Your task to perform on an android device: toggle notifications settings in the gmail app Image 0: 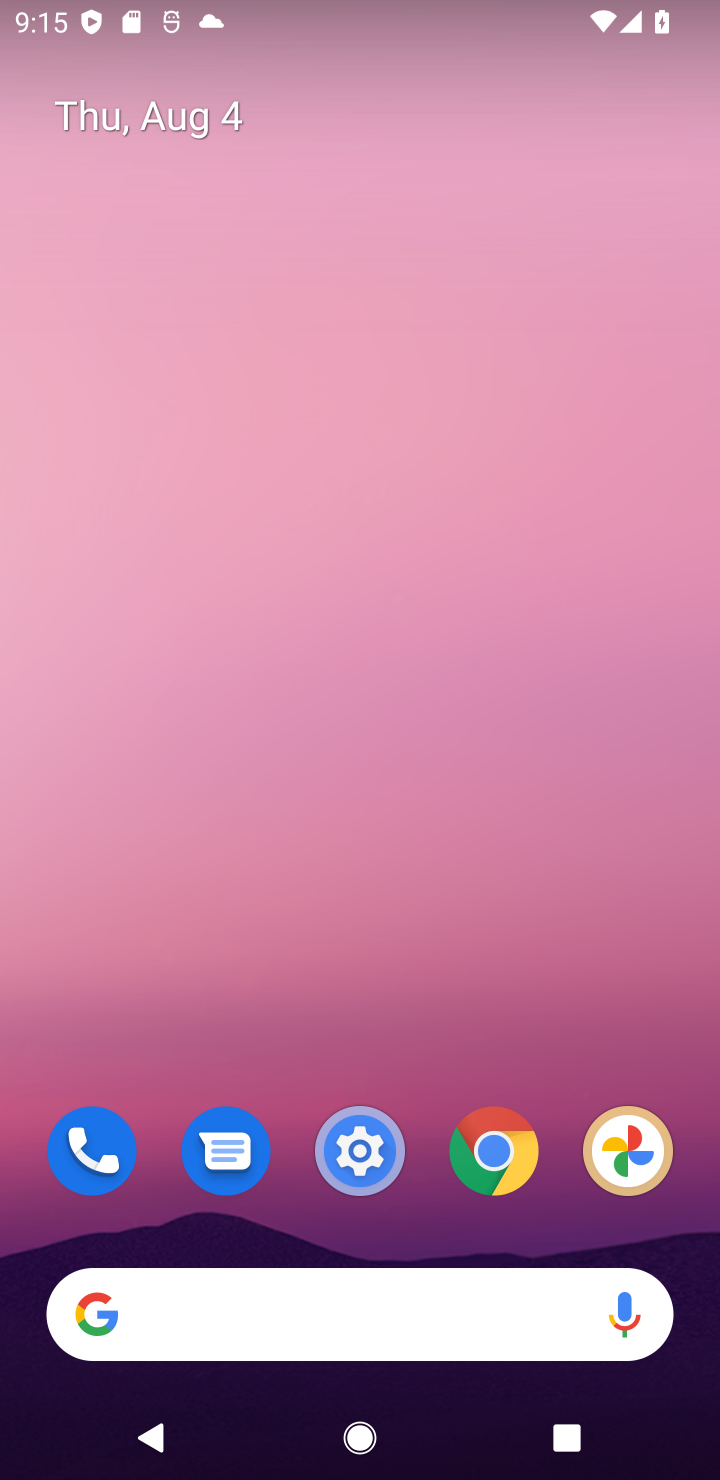
Step 0: drag from (411, 993) to (356, 183)
Your task to perform on an android device: toggle notifications settings in the gmail app Image 1: 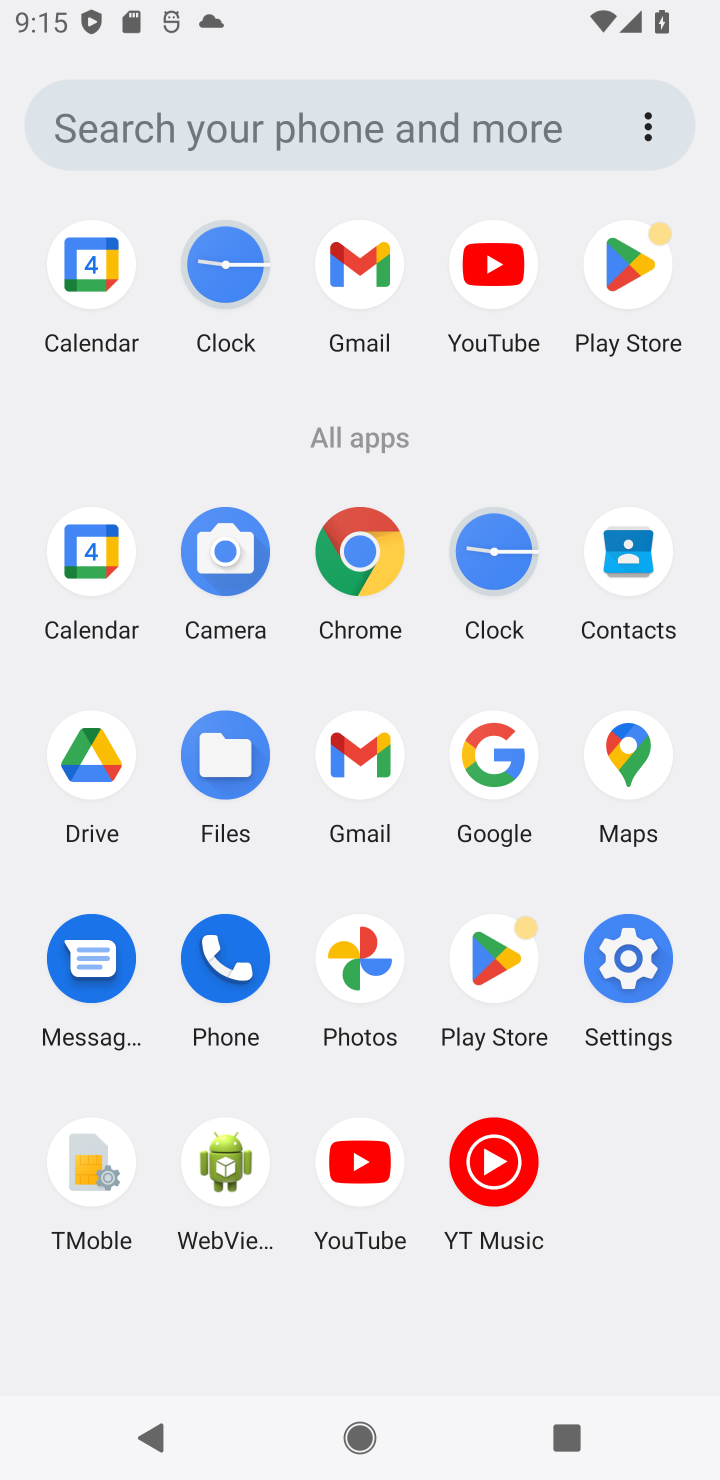
Step 1: click (372, 756)
Your task to perform on an android device: toggle notifications settings in the gmail app Image 2: 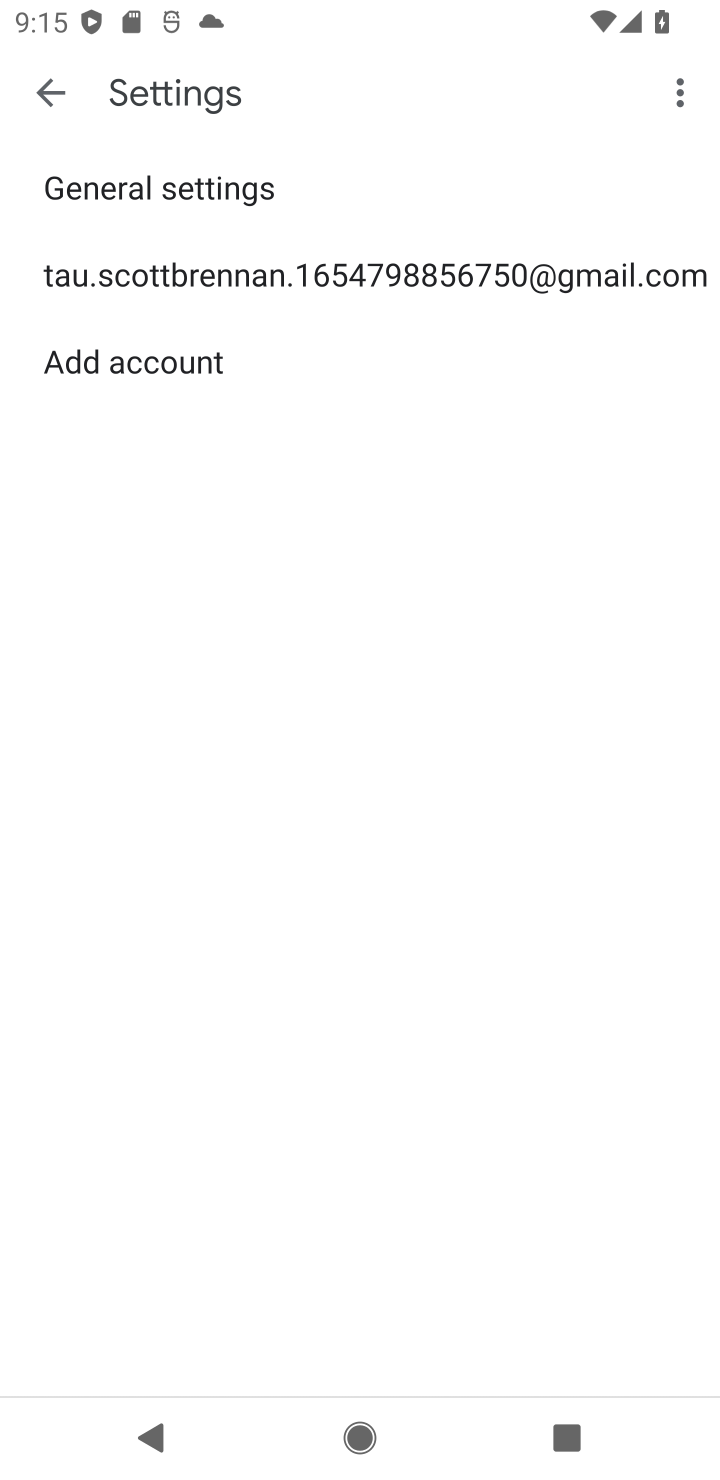
Step 2: click (230, 268)
Your task to perform on an android device: toggle notifications settings in the gmail app Image 3: 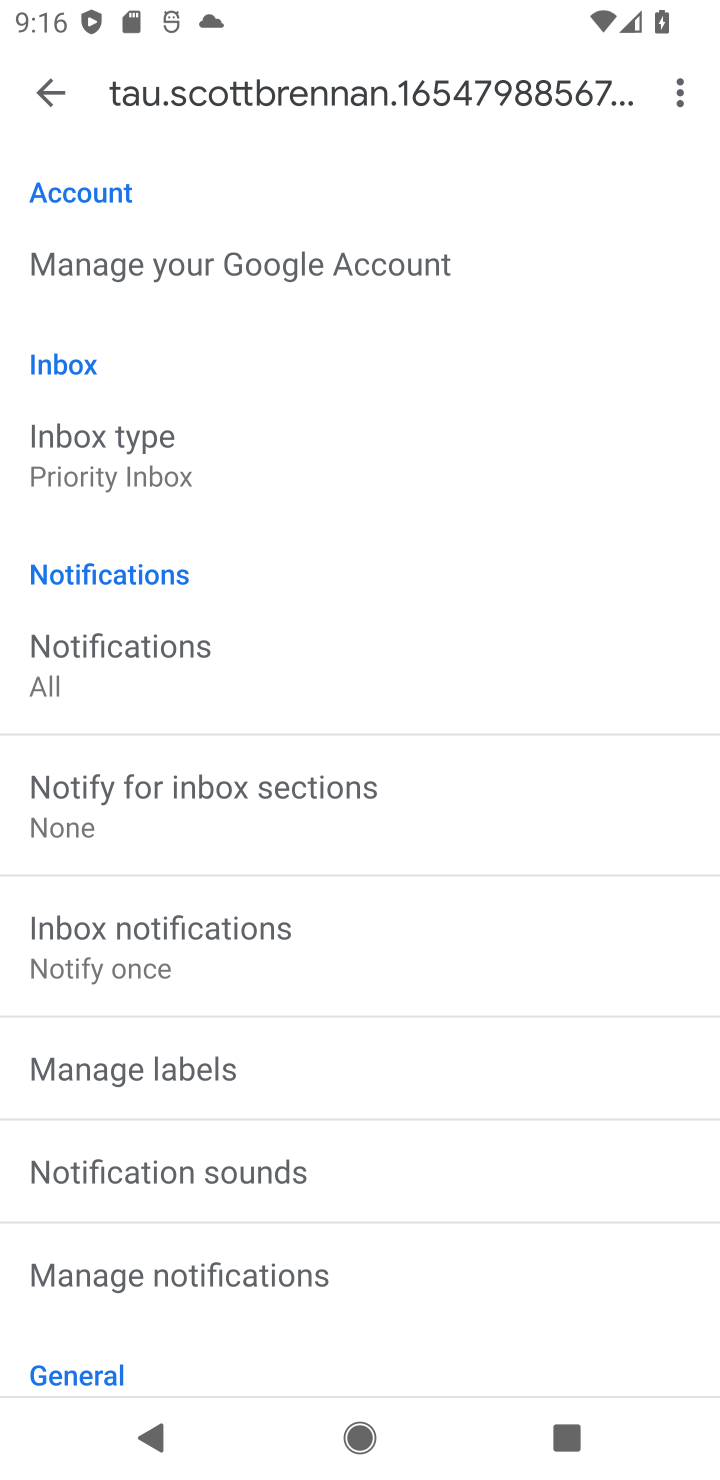
Step 3: click (296, 679)
Your task to perform on an android device: toggle notifications settings in the gmail app Image 4: 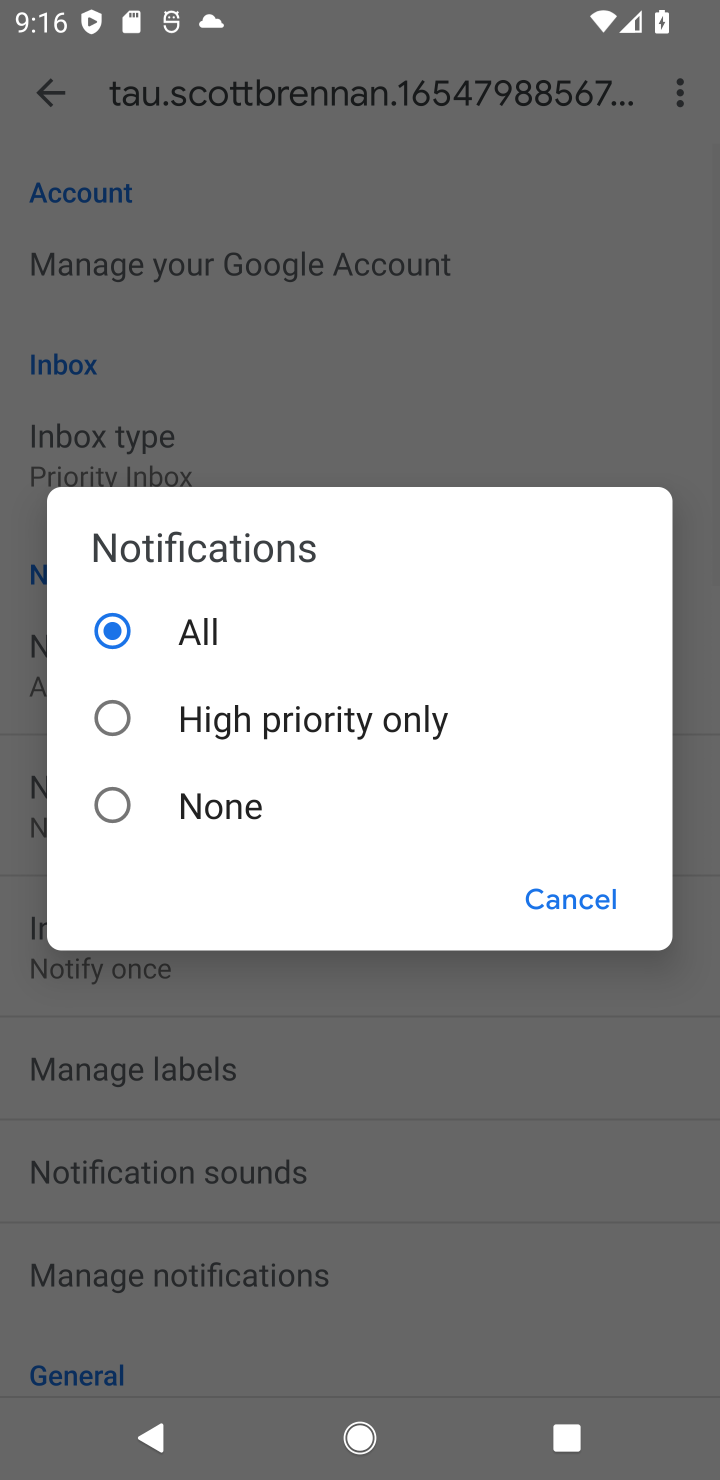
Step 4: click (223, 813)
Your task to perform on an android device: toggle notifications settings in the gmail app Image 5: 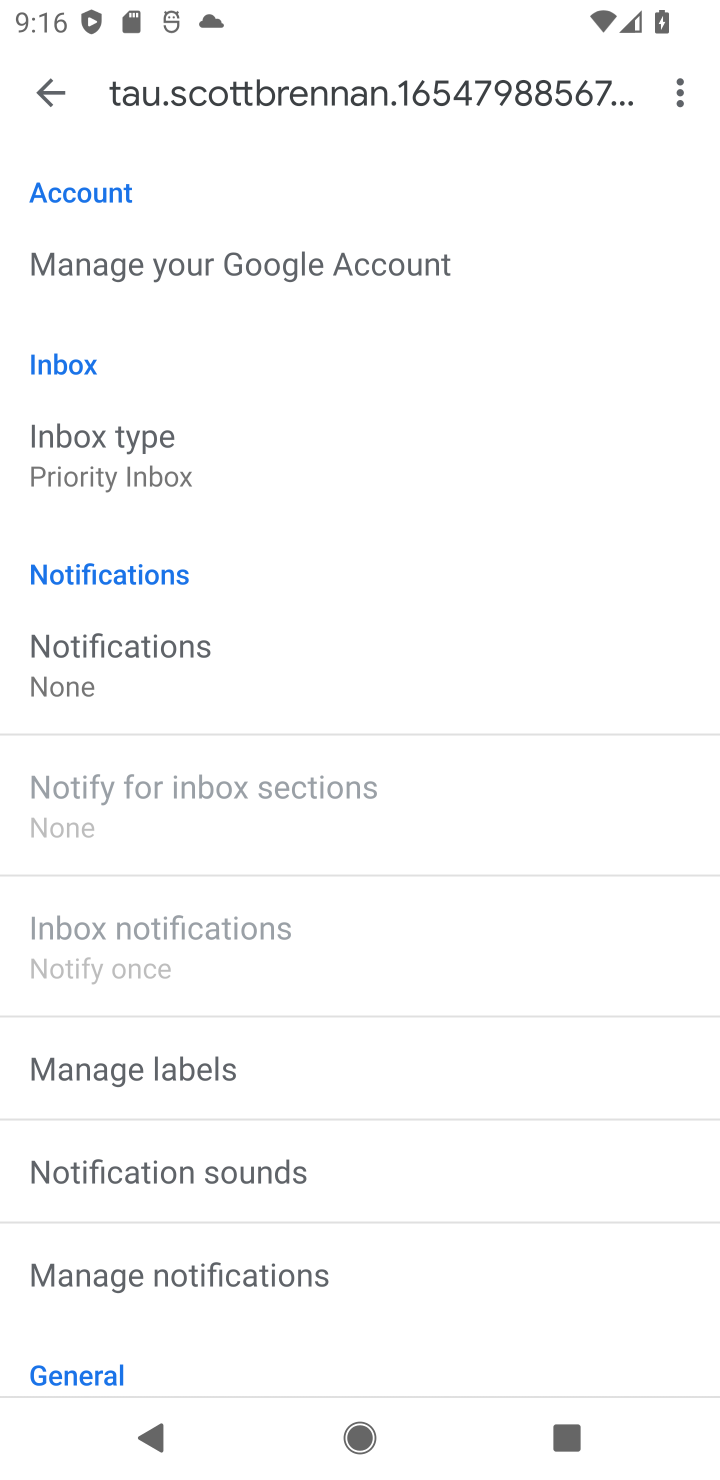
Step 5: click (322, 1258)
Your task to perform on an android device: toggle notifications settings in the gmail app Image 6: 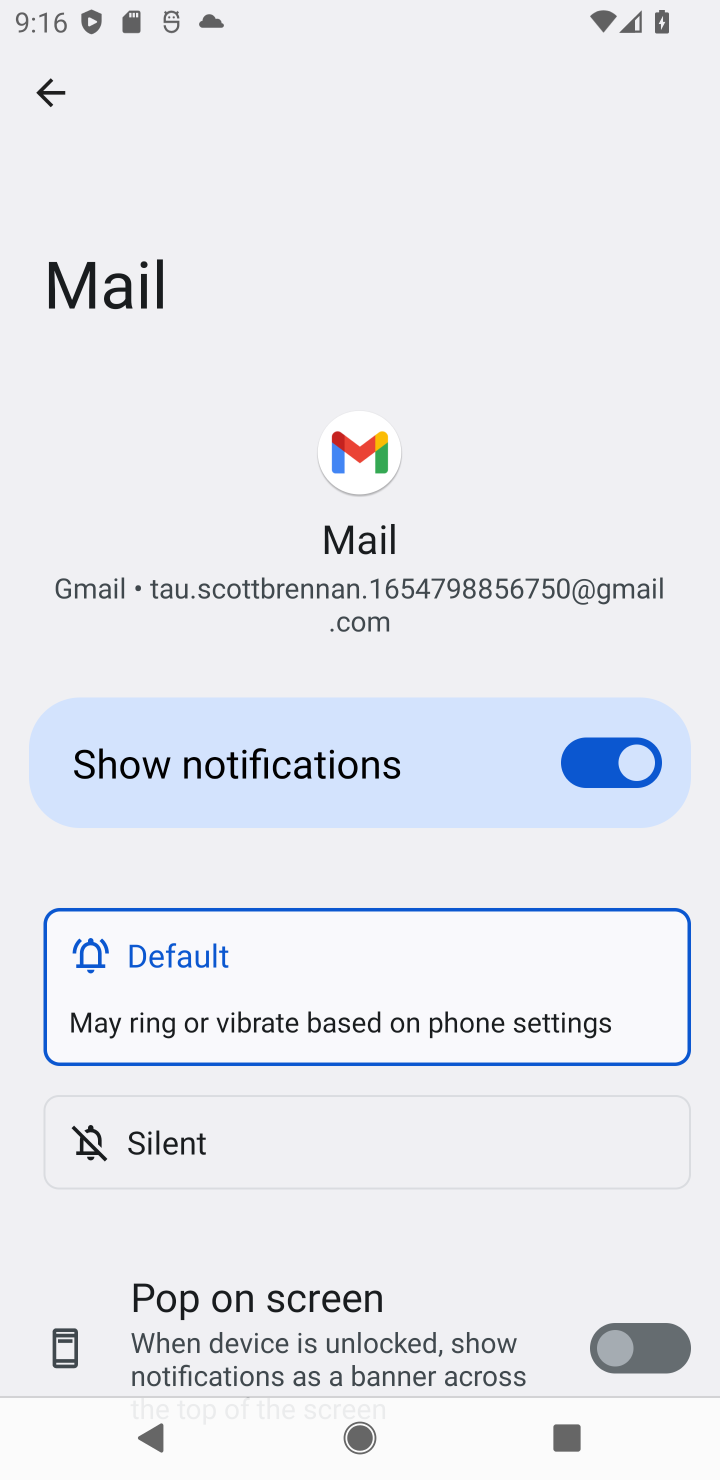
Step 6: click (590, 762)
Your task to perform on an android device: toggle notifications settings in the gmail app Image 7: 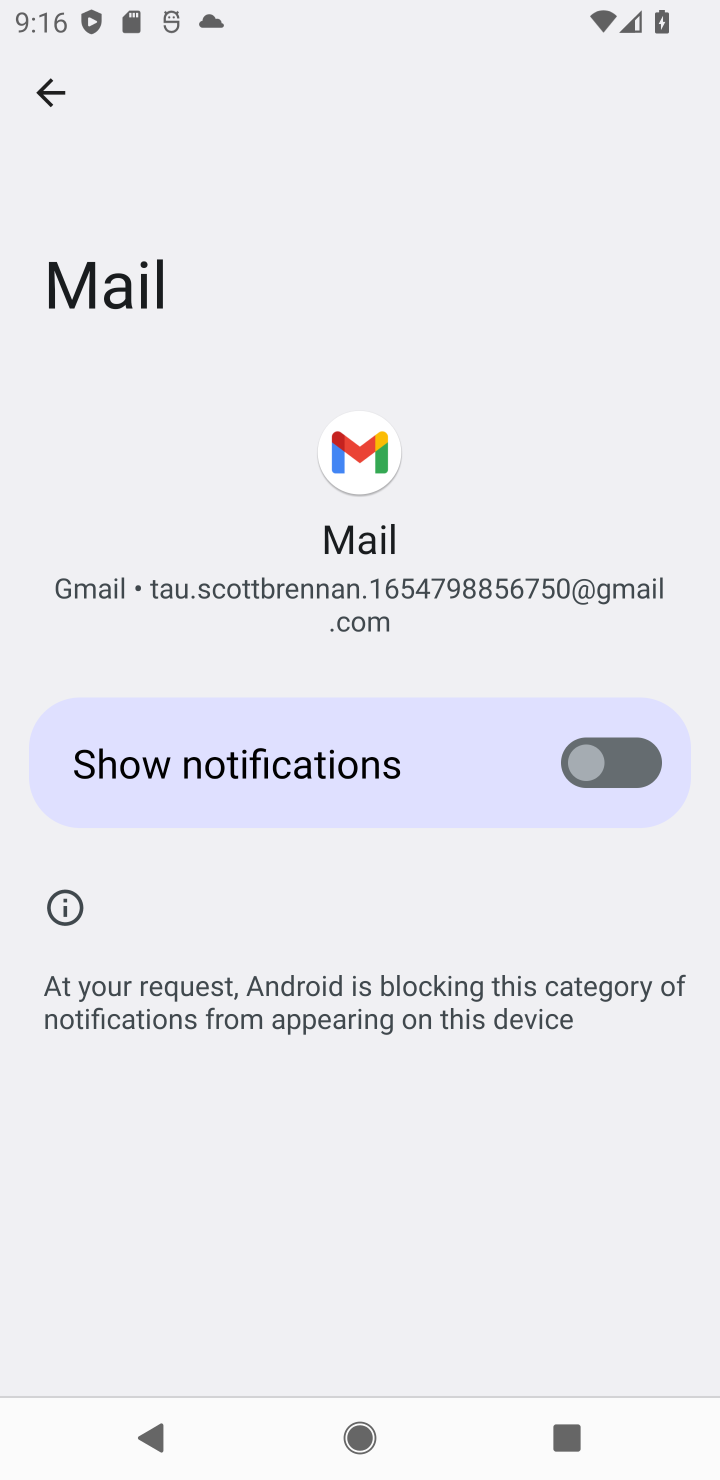
Step 7: task complete